Your task to perform on an android device: Open settings Image 0: 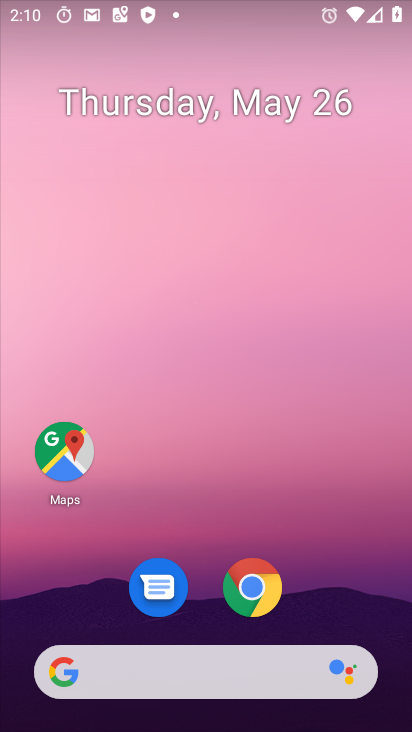
Step 0: drag from (308, 667) to (274, 214)
Your task to perform on an android device: Open settings Image 1: 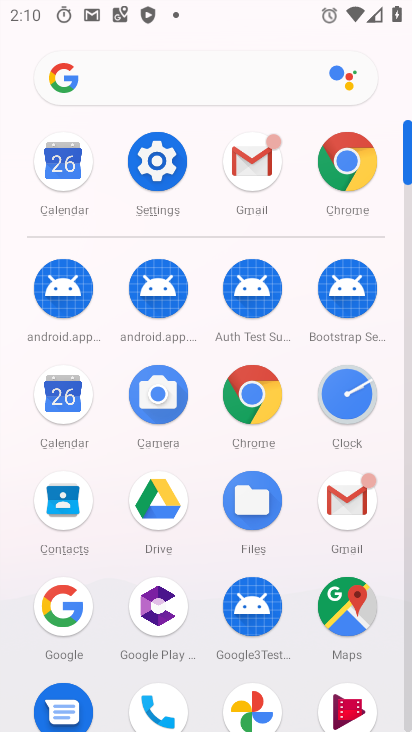
Step 1: click (150, 175)
Your task to perform on an android device: Open settings Image 2: 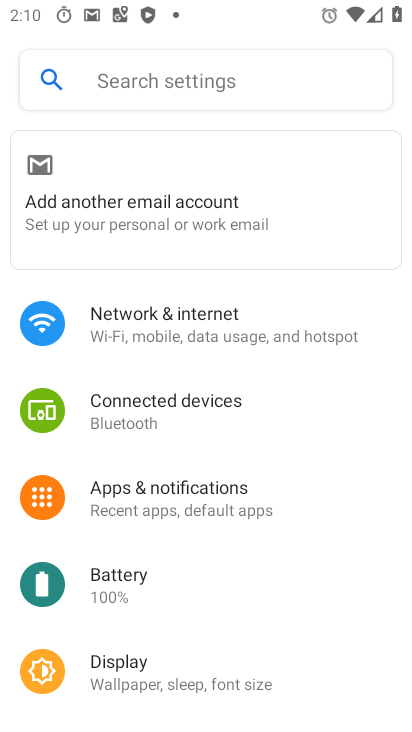
Step 2: task complete